Your task to perform on an android device: Go to Google Image 0: 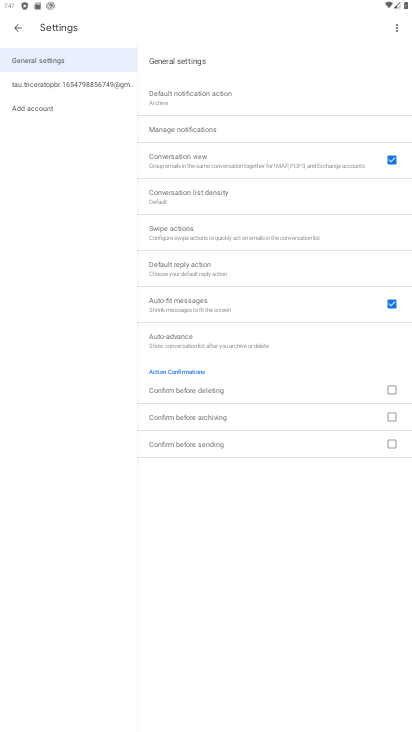
Step 0: press home button
Your task to perform on an android device: Go to Google Image 1: 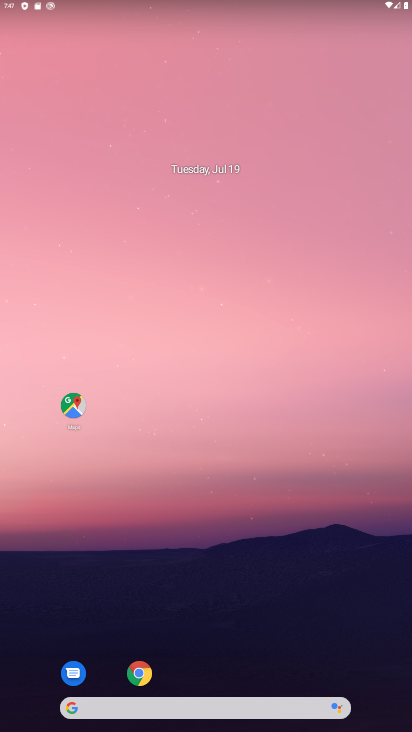
Step 1: drag from (175, 534) to (196, 104)
Your task to perform on an android device: Go to Google Image 2: 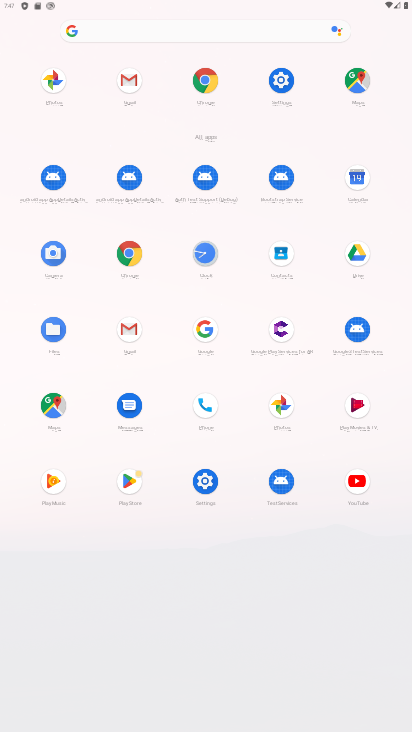
Step 2: click (204, 331)
Your task to perform on an android device: Go to Google Image 3: 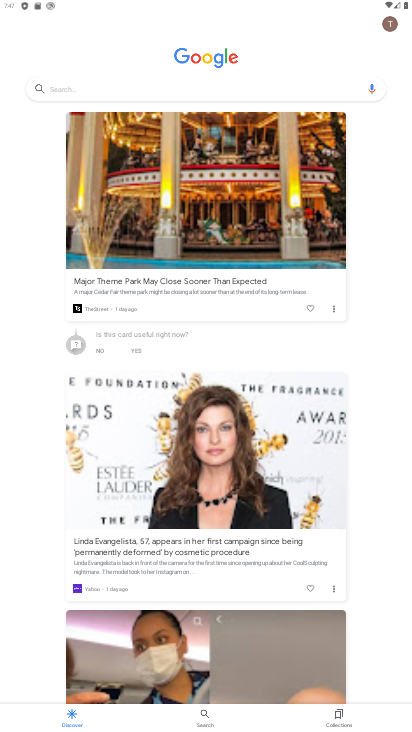
Step 3: task complete